Your task to perform on an android device: change the clock display to digital Image 0: 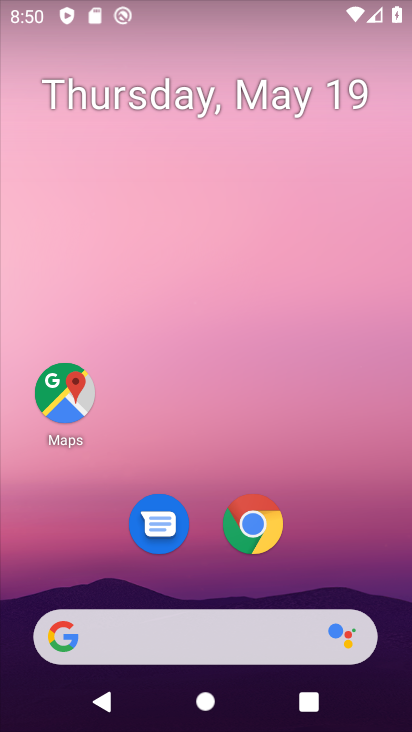
Step 0: drag from (219, 461) to (270, 78)
Your task to perform on an android device: change the clock display to digital Image 1: 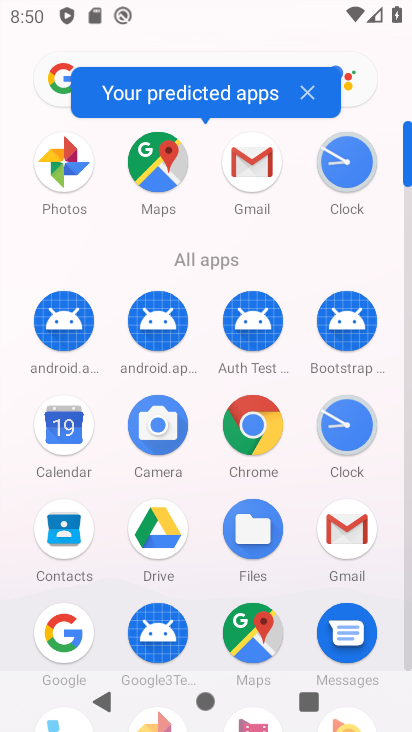
Step 1: click (335, 164)
Your task to perform on an android device: change the clock display to digital Image 2: 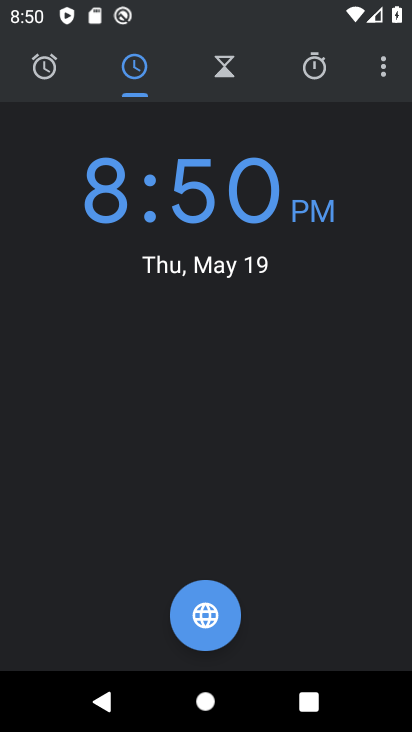
Step 2: click (382, 67)
Your task to perform on an android device: change the clock display to digital Image 3: 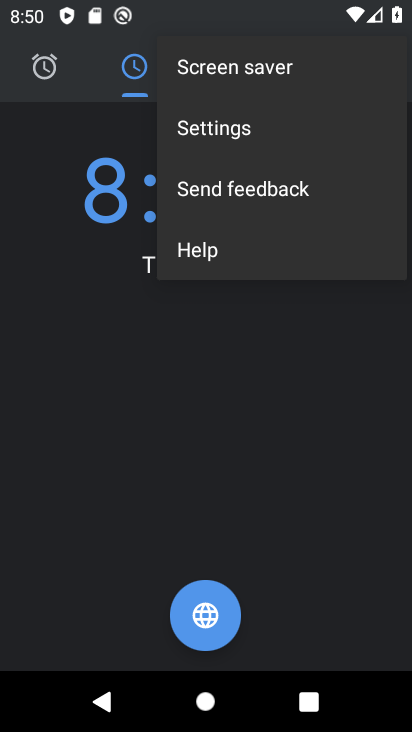
Step 3: click (268, 127)
Your task to perform on an android device: change the clock display to digital Image 4: 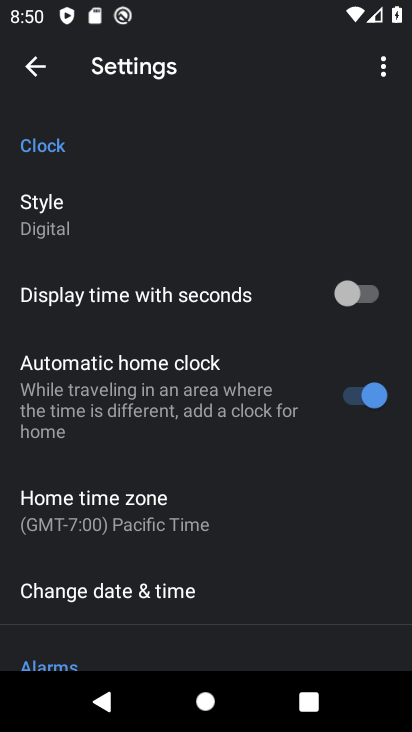
Step 4: click (32, 60)
Your task to perform on an android device: change the clock display to digital Image 5: 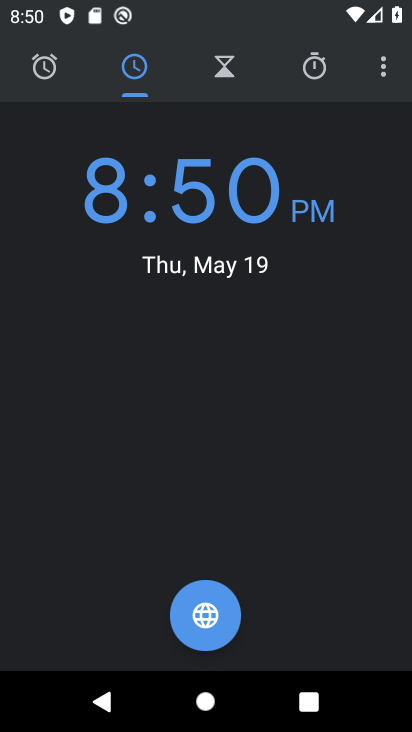
Step 5: task complete